Your task to perform on an android device: Open my contact list Image 0: 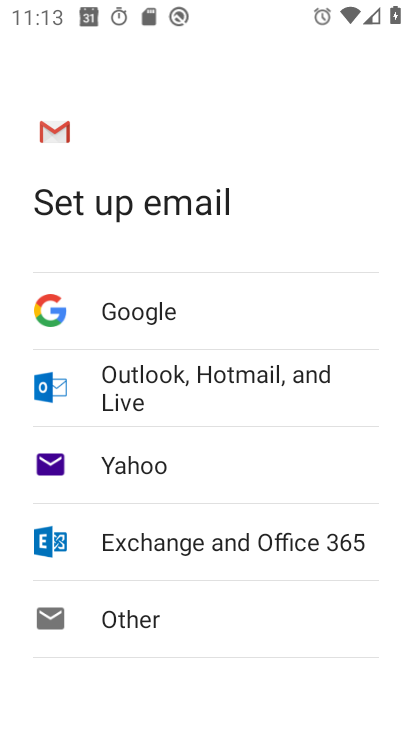
Step 0: press home button
Your task to perform on an android device: Open my contact list Image 1: 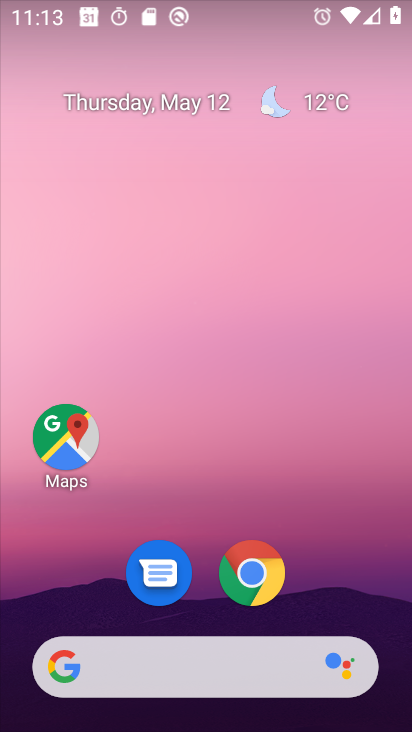
Step 1: drag from (391, 524) to (360, 335)
Your task to perform on an android device: Open my contact list Image 2: 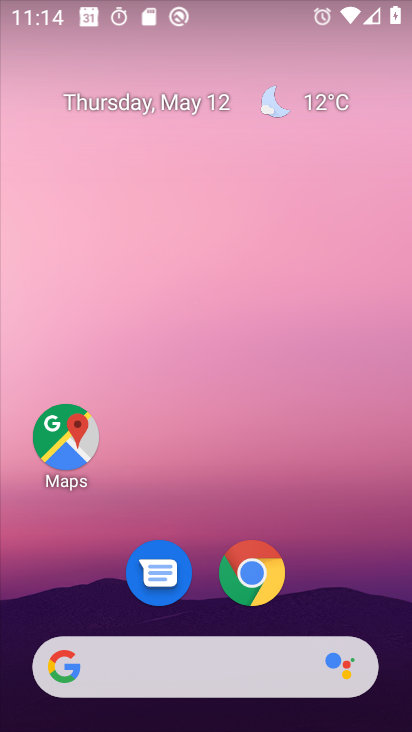
Step 2: drag from (400, 674) to (370, 275)
Your task to perform on an android device: Open my contact list Image 3: 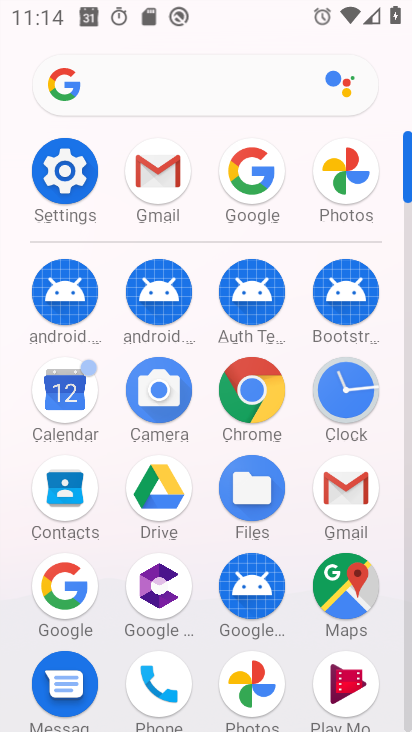
Step 3: click (44, 485)
Your task to perform on an android device: Open my contact list Image 4: 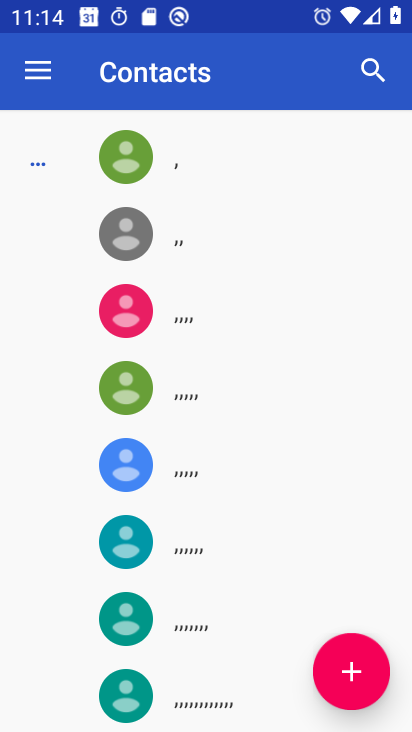
Step 4: task complete